Your task to perform on an android device: delete a single message in the gmail app Image 0: 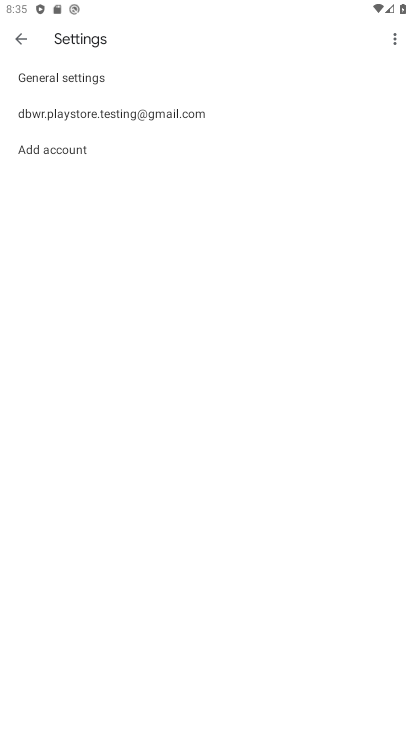
Step 0: press home button
Your task to perform on an android device: delete a single message in the gmail app Image 1: 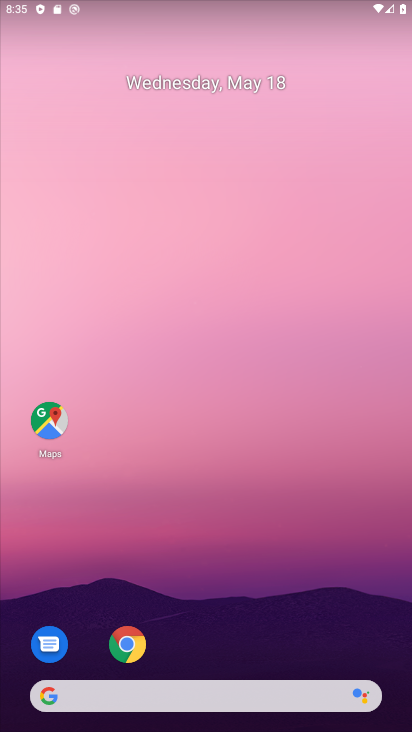
Step 1: drag from (186, 619) to (290, 13)
Your task to perform on an android device: delete a single message in the gmail app Image 2: 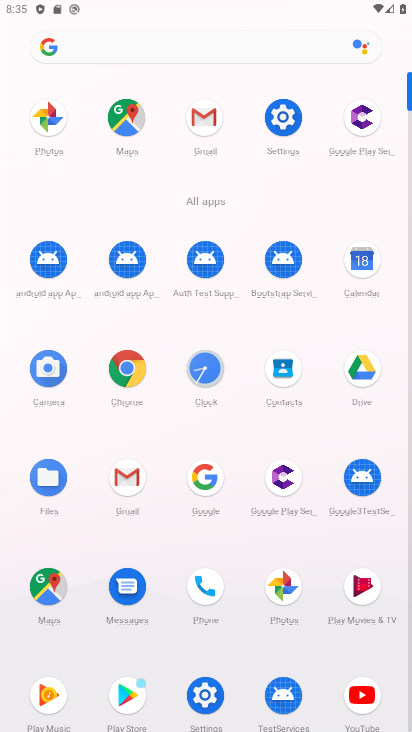
Step 2: click (205, 163)
Your task to perform on an android device: delete a single message in the gmail app Image 3: 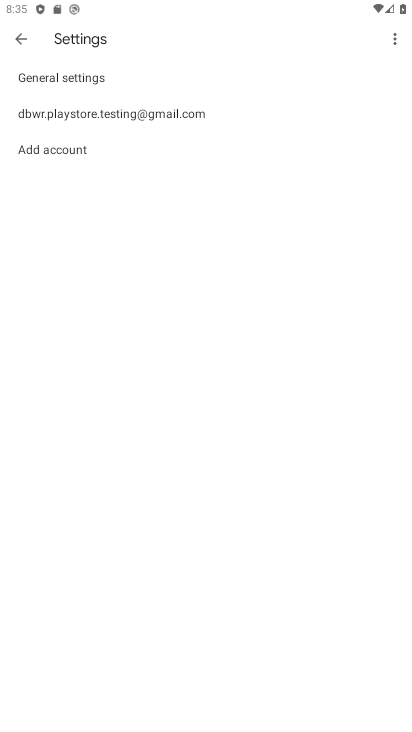
Step 3: click (15, 39)
Your task to perform on an android device: delete a single message in the gmail app Image 4: 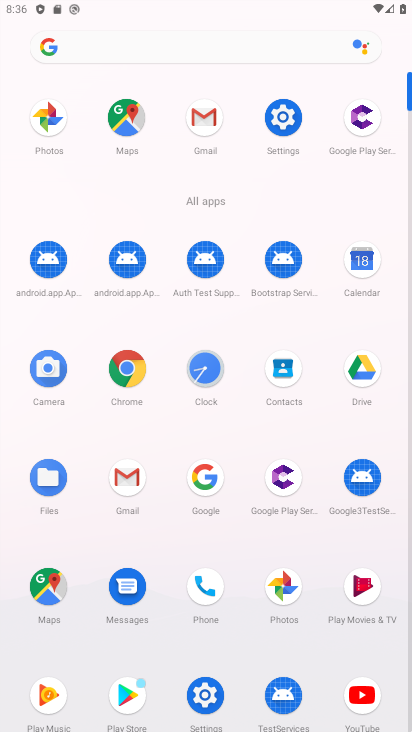
Step 4: click (209, 127)
Your task to perform on an android device: delete a single message in the gmail app Image 5: 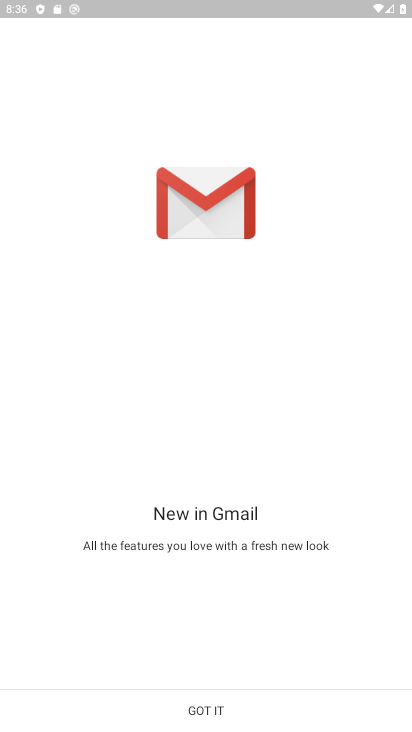
Step 5: click (213, 716)
Your task to perform on an android device: delete a single message in the gmail app Image 6: 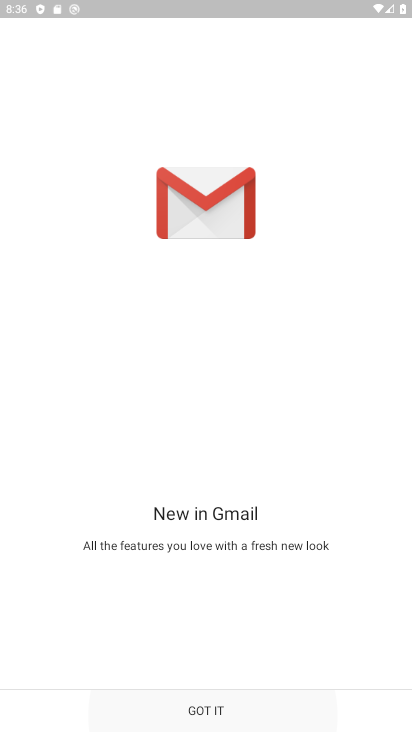
Step 6: click (213, 716)
Your task to perform on an android device: delete a single message in the gmail app Image 7: 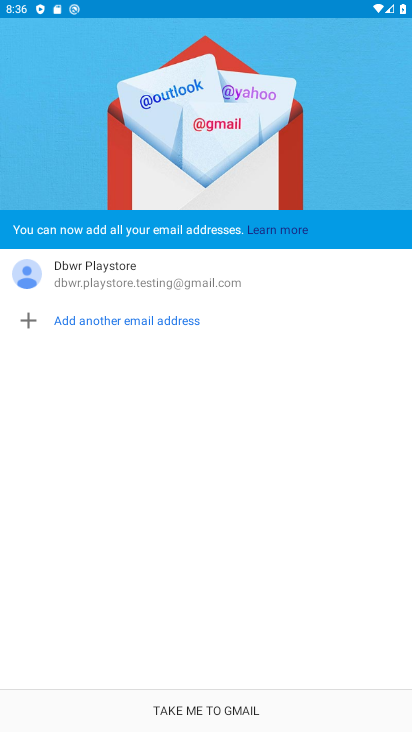
Step 7: click (213, 716)
Your task to perform on an android device: delete a single message in the gmail app Image 8: 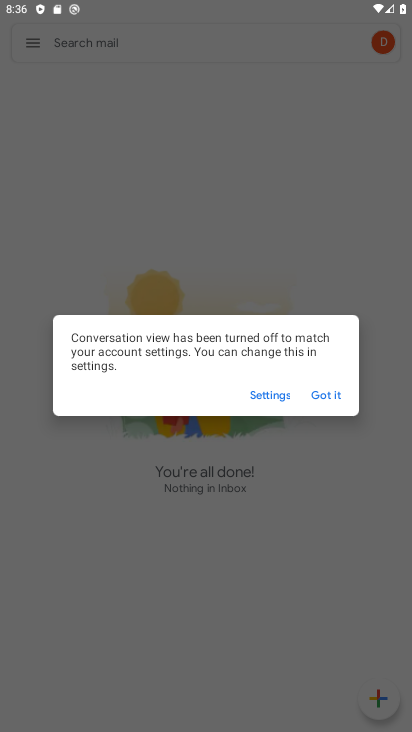
Step 8: click (325, 396)
Your task to perform on an android device: delete a single message in the gmail app Image 9: 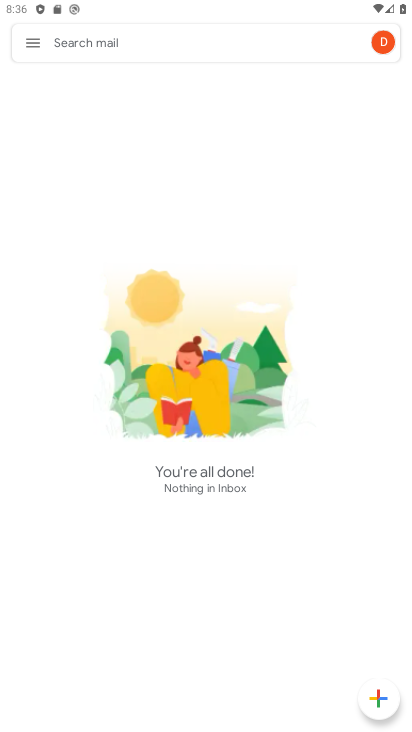
Step 9: click (172, 183)
Your task to perform on an android device: delete a single message in the gmail app Image 10: 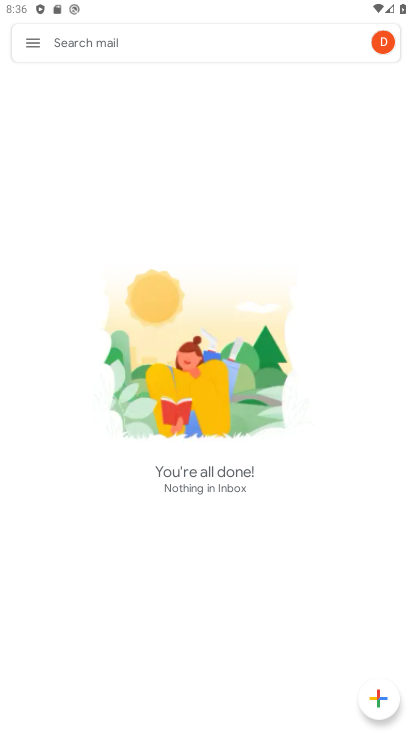
Step 10: click (172, 183)
Your task to perform on an android device: delete a single message in the gmail app Image 11: 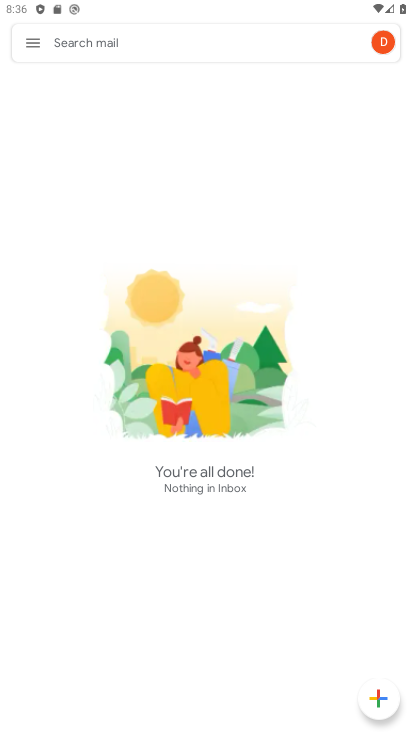
Step 11: click (172, 183)
Your task to perform on an android device: delete a single message in the gmail app Image 12: 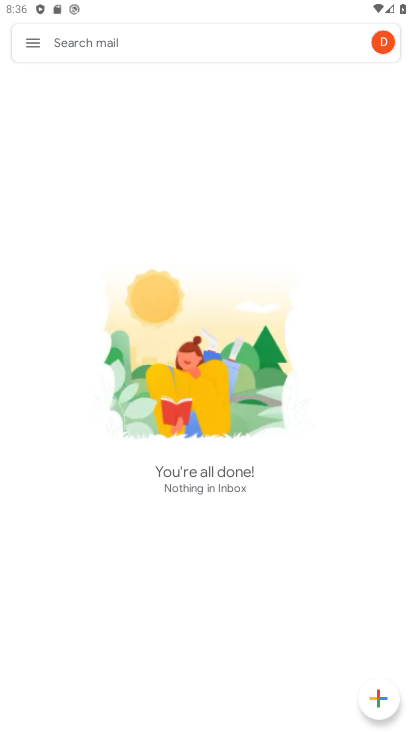
Step 12: task complete